Your task to perform on an android device: Open Wikipedia Image 0: 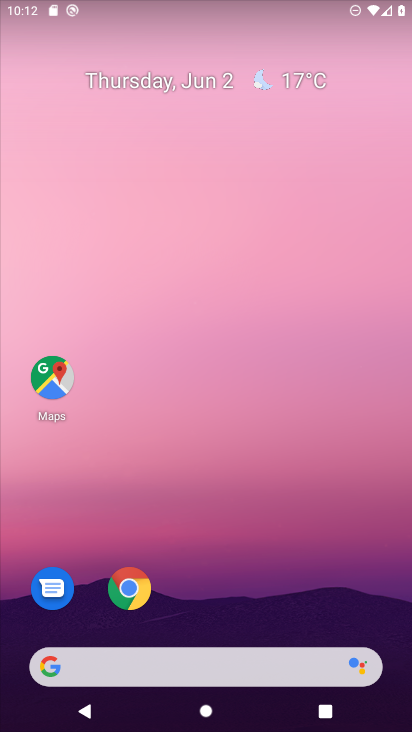
Step 0: drag from (173, 649) to (244, 76)
Your task to perform on an android device: Open Wikipedia Image 1: 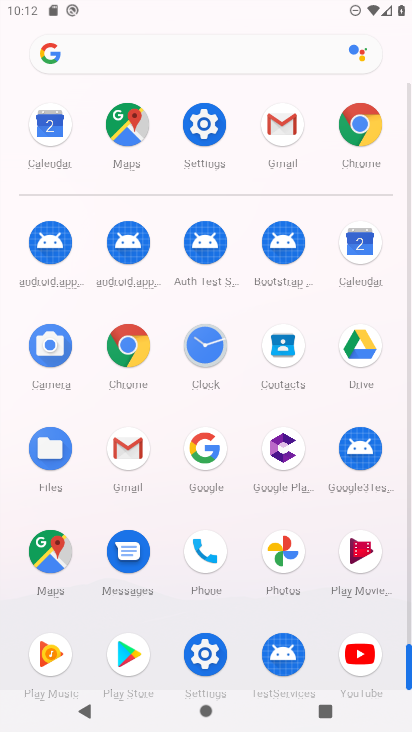
Step 1: click (380, 143)
Your task to perform on an android device: Open Wikipedia Image 2: 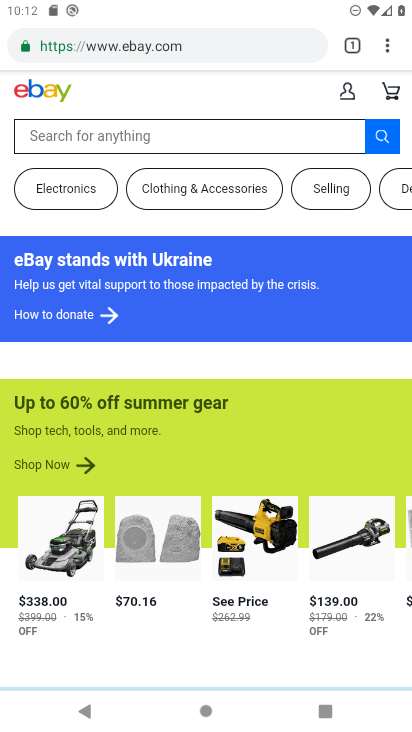
Step 2: click (241, 43)
Your task to perform on an android device: Open Wikipedia Image 3: 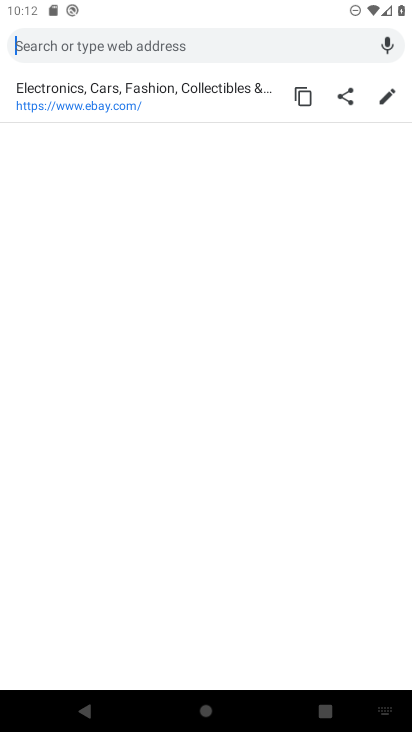
Step 3: type "wikipedia"
Your task to perform on an android device: Open Wikipedia Image 4: 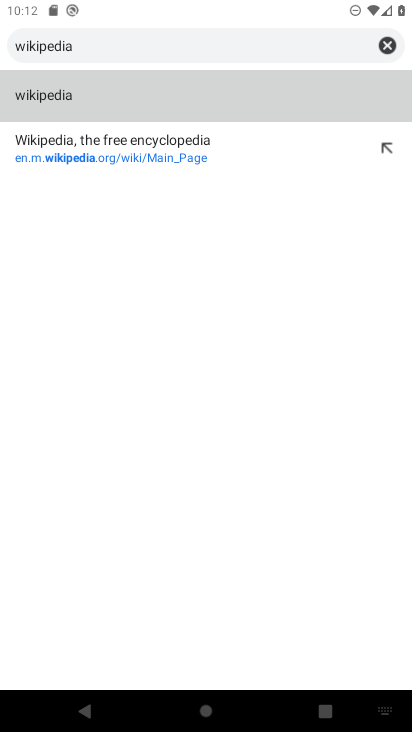
Step 4: click (97, 152)
Your task to perform on an android device: Open Wikipedia Image 5: 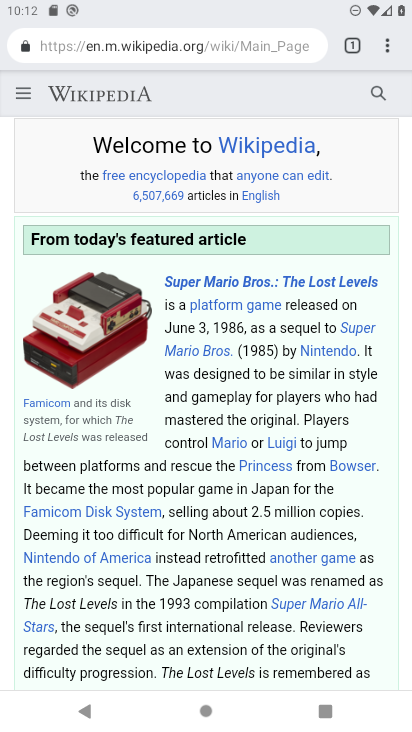
Step 5: task complete